Your task to perform on an android device: change the clock style Image 0: 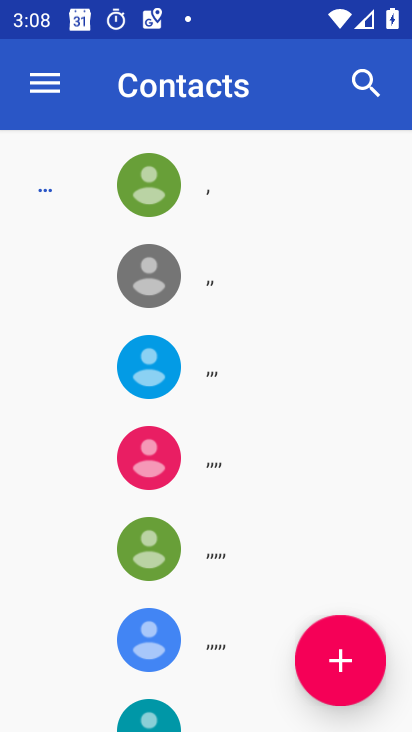
Step 0: press home button
Your task to perform on an android device: change the clock style Image 1: 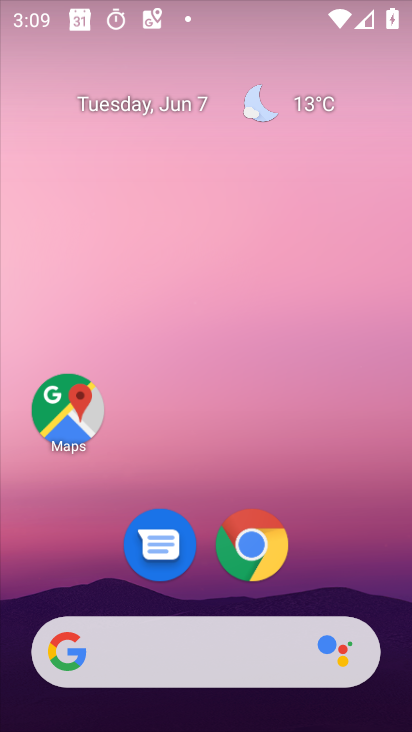
Step 1: drag from (340, 560) to (211, 4)
Your task to perform on an android device: change the clock style Image 2: 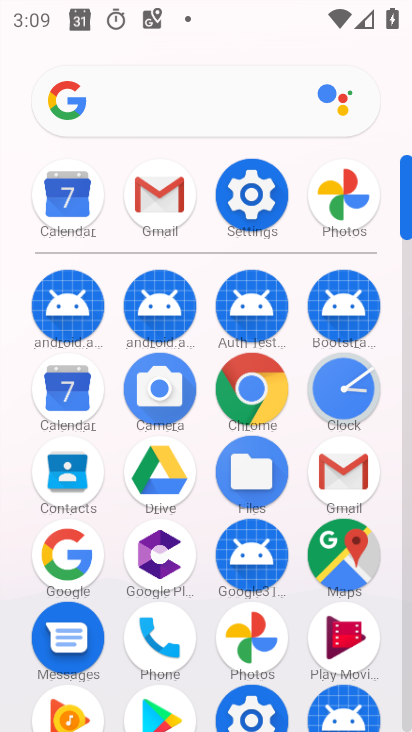
Step 2: click (343, 384)
Your task to perform on an android device: change the clock style Image 3: 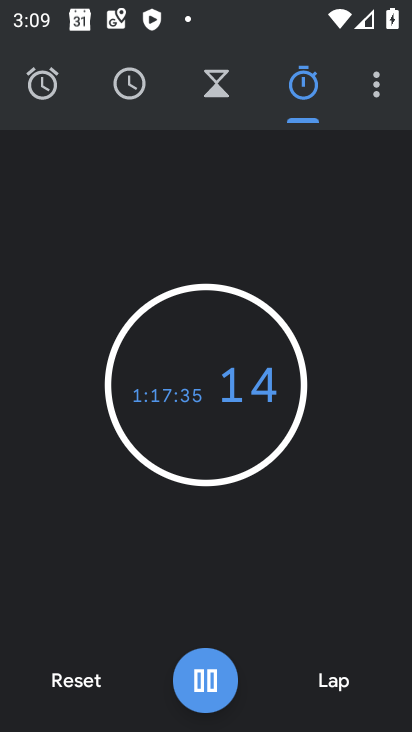
Step 3: click (369, 86)
Your task to perform on an android device: change the clock style Image 4: 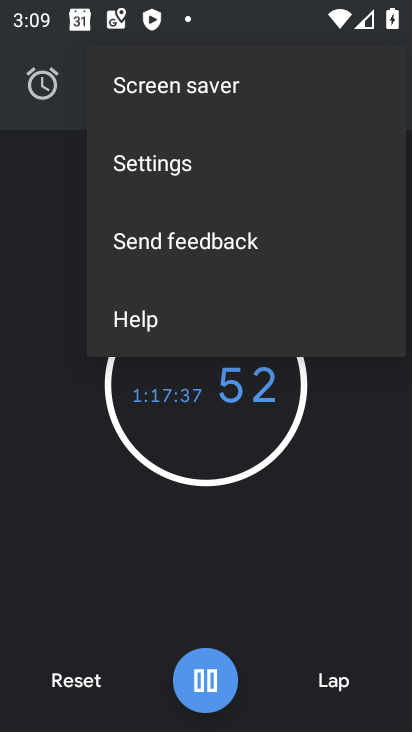
Step 4: click (131, 194)
Your task to perform on an android device: change the clock style Image 5: 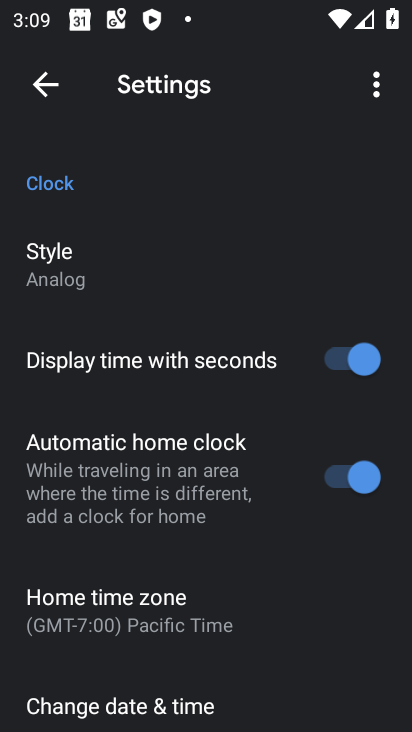
Step 5: click (162, 305)
Your task to perform on an android device: change the clock style Image 6: 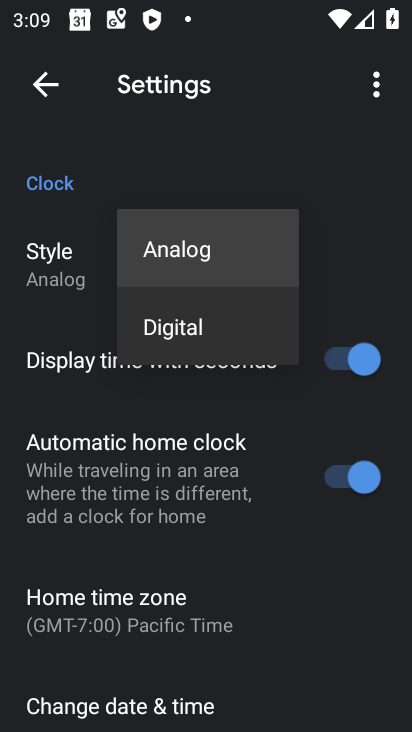
Step 6: click (201, 340)
Your task to perform on an android device: change the clock style Image 7: 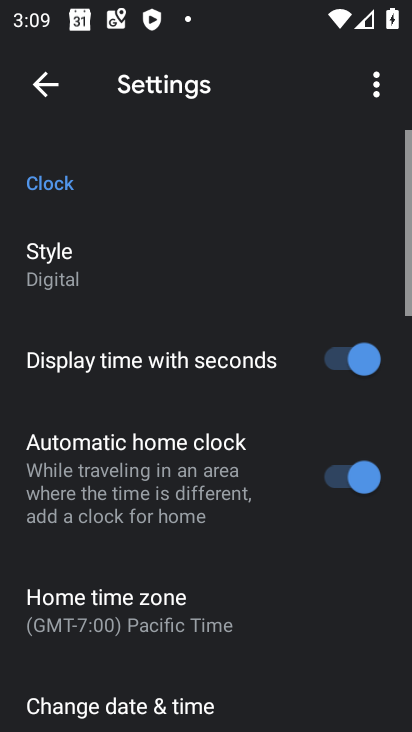
Step 7: task complete